Your task to perform on an android device: Open Google Chrome Image 0: 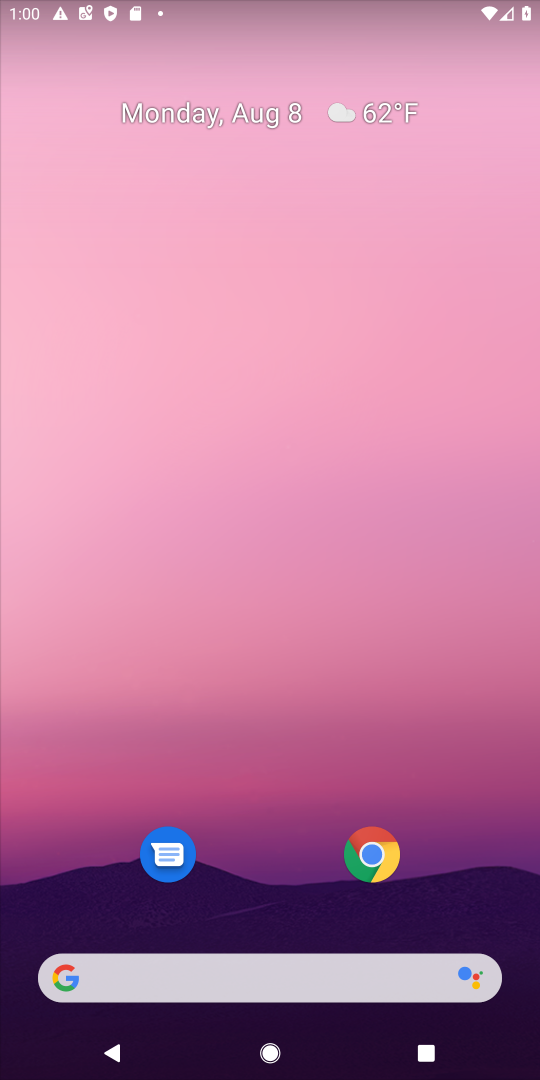
Step 0: click (379, 862)
Your task to perform on an android device: Open Google Chrome Image 1: 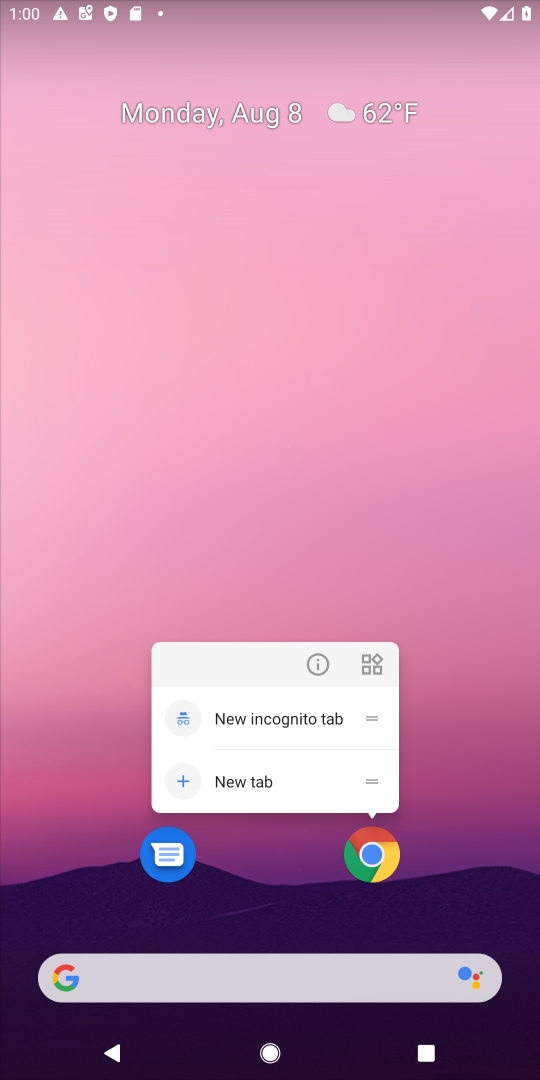
Step 1: click (365, 856)
Your task to perform on an android device: Open Google Chrome Image 2: 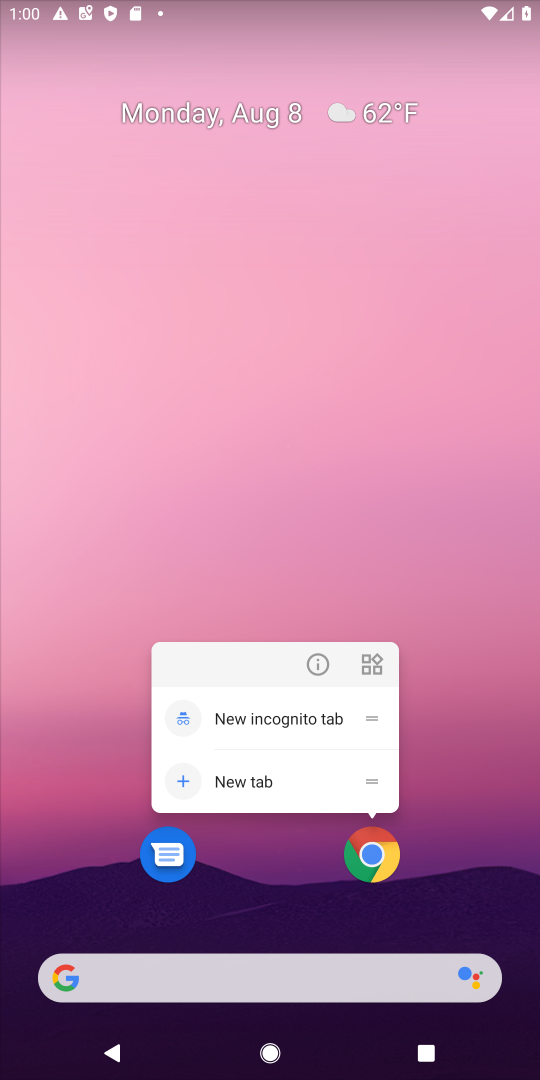
Step 2: click (367, 835)
Your task to perform on an android device: Open Google Chrome Image 3: 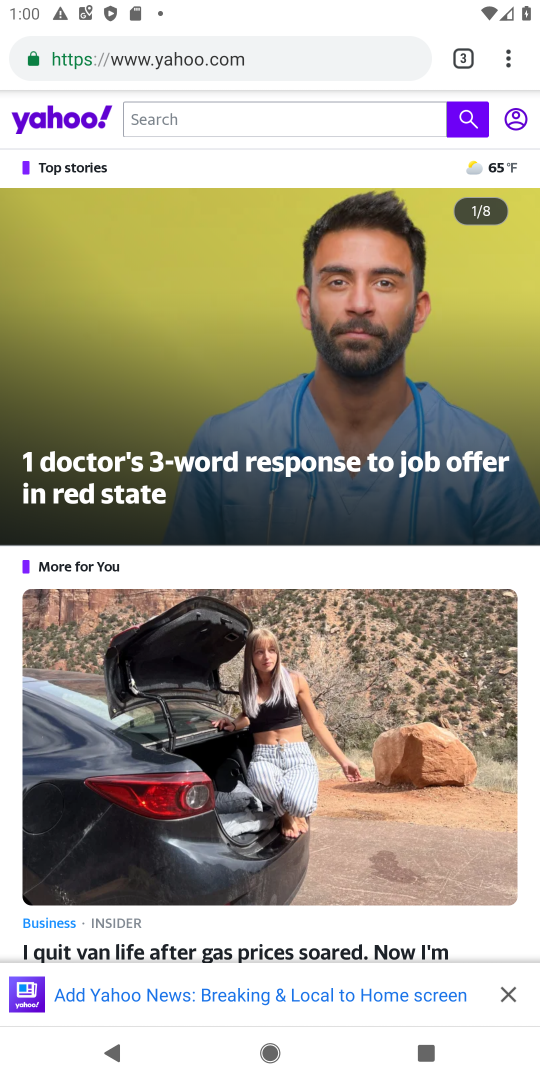
Step 3: task complete